Your task to perform on an android device: set the timer Image 0: 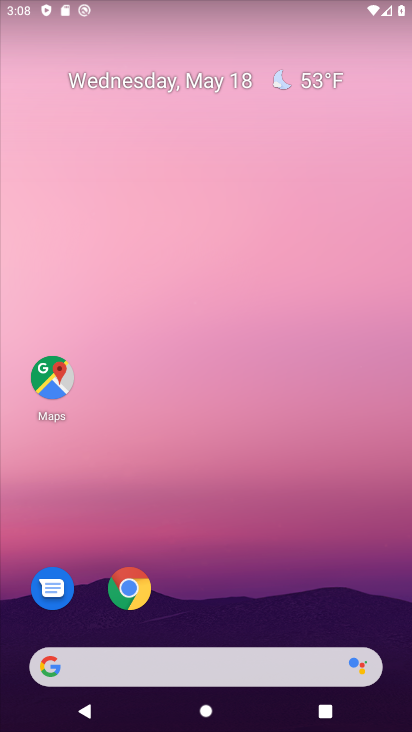
Step 0: press home button
Your task to perform on an android device: set the timer Image 1: 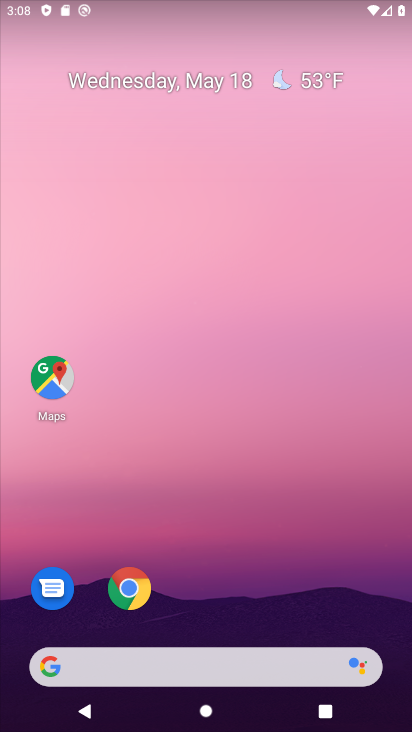
Step 1: drag from (233, 589) to (263, 31)
Your task to perform on an android device: set the timer Image 2: 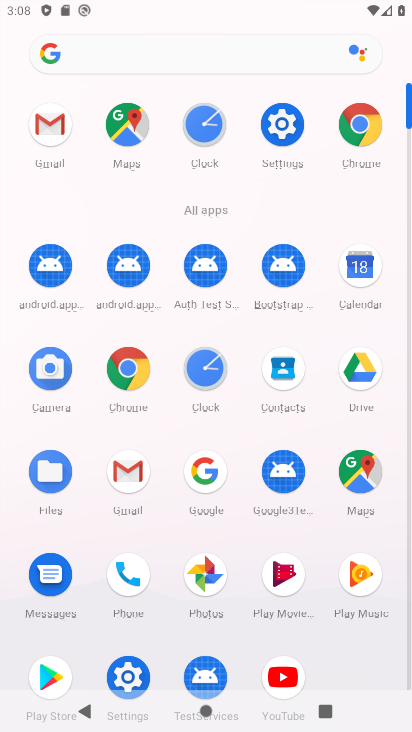
Step 2: click (48, 110)
Your task to perform on an android device: set the timer Image 3: 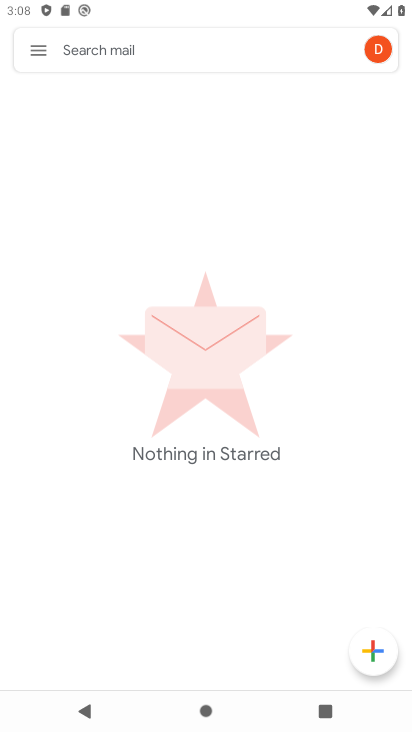
Step 3: click (38, 63)
Your task to perform on an android device: set the timer Image 4: 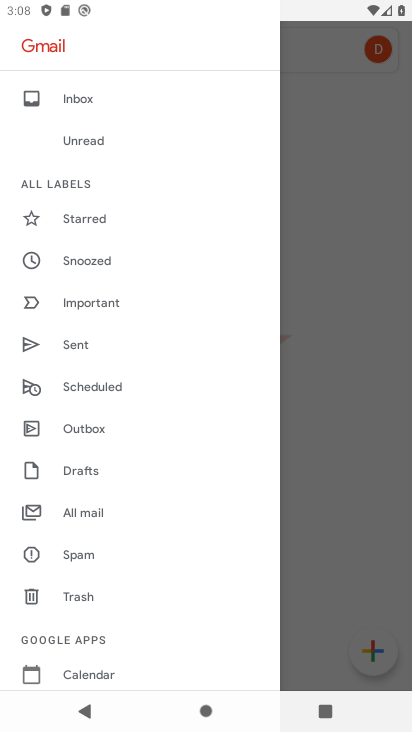
Step 4: press home button
Your task to perform on an android device: set the timer Image 5: 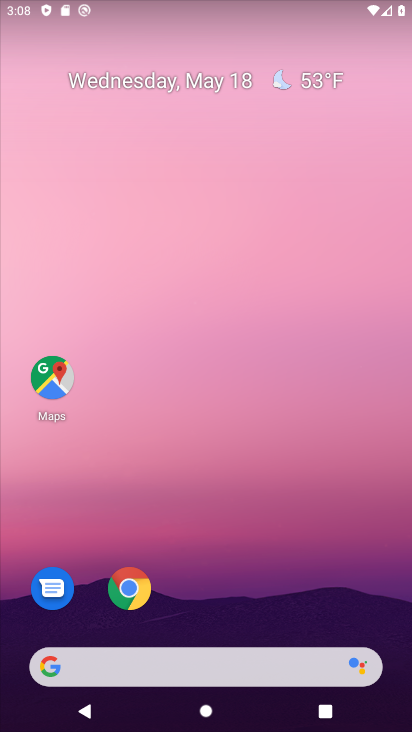
Step 5: drag from (344, 558) to (274, 101)
Your task to perform on an android device: set the timer Image 6: 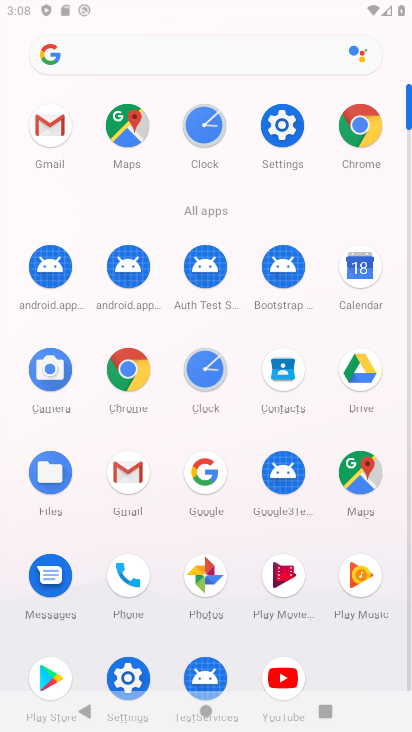
Step 6: click (274, 37)
Your task to perform on an android device: set the timer Image 7: 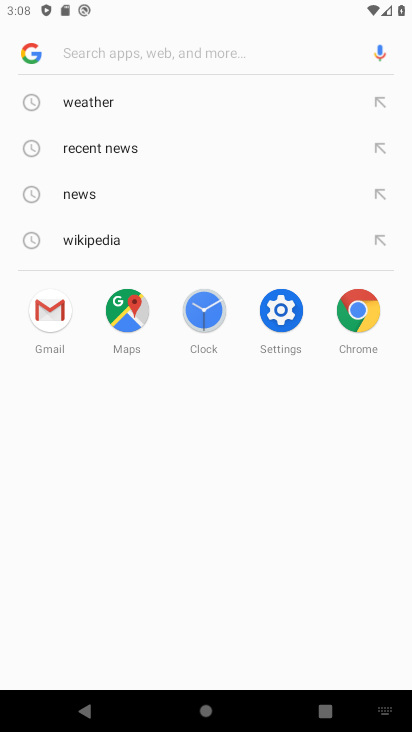
Step 7: click (209, 323)
Your task to perform on an android device: set the timer Image 8: 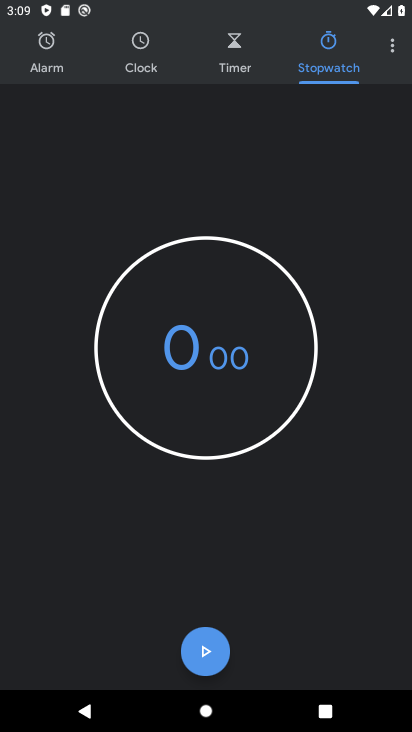
Step 8: click (247, 51)
Your task to perform on an android device: set the timer Image 9: 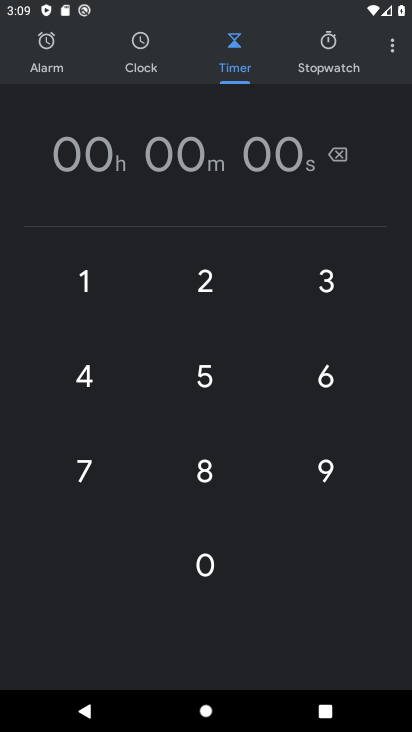
Step 9: click (224, 424)
Your task to perform on an android device: set the timer Image 10: 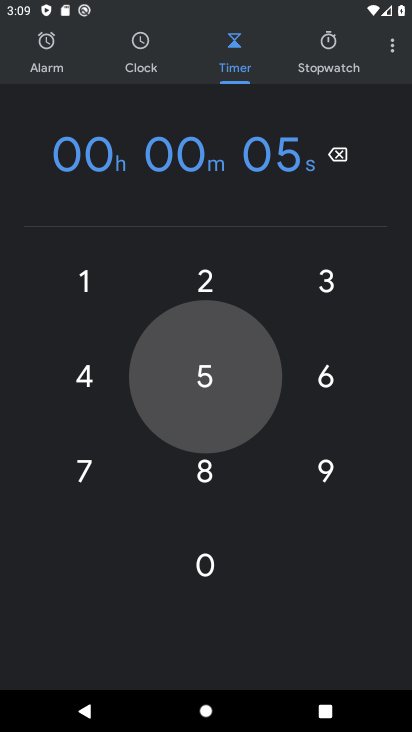
Step 10: click (217, 490)
Your task to perform on an android device: set the timer Image 11: 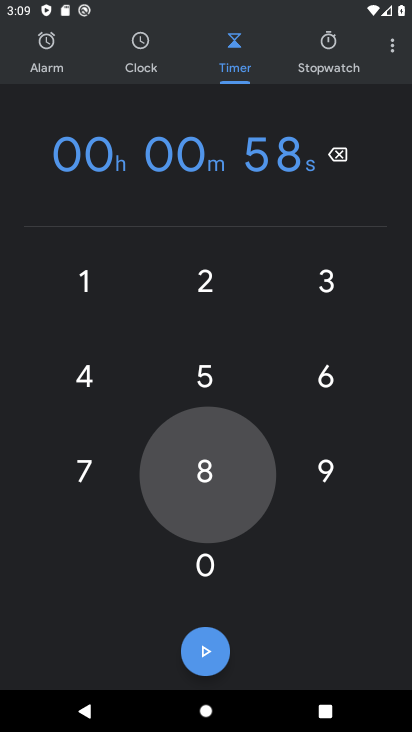
Step 11: click (197, 572)
Your task to perform on an android device: set the timer Image 12: 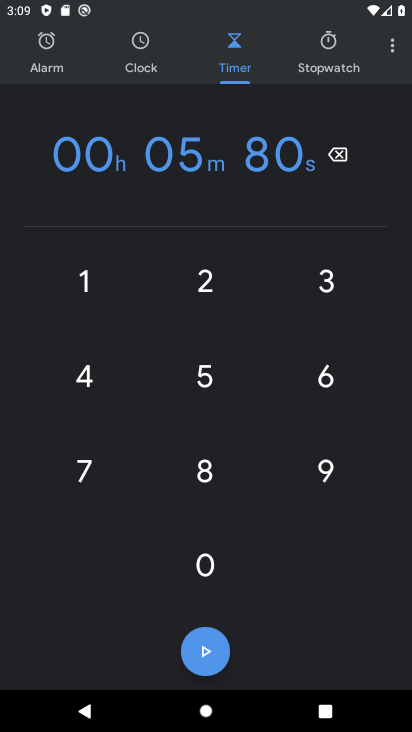
Step 12: click (218, 669)
Your task to perform on an android device: set the timer Image 13: 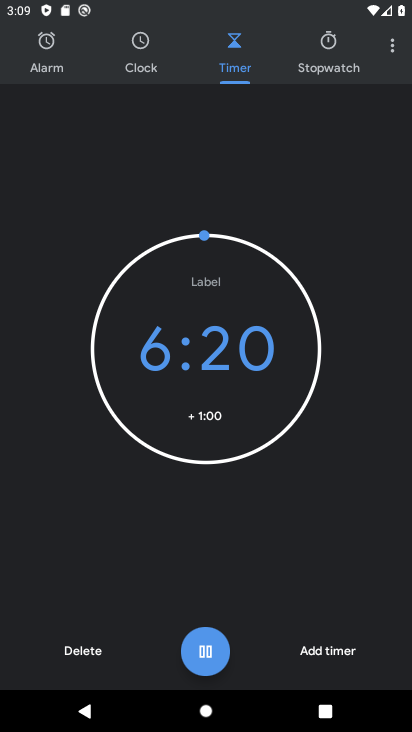
Step 13: task complete